Your task to perform on an android device: Open Chrome and go to the settings page Image 0: 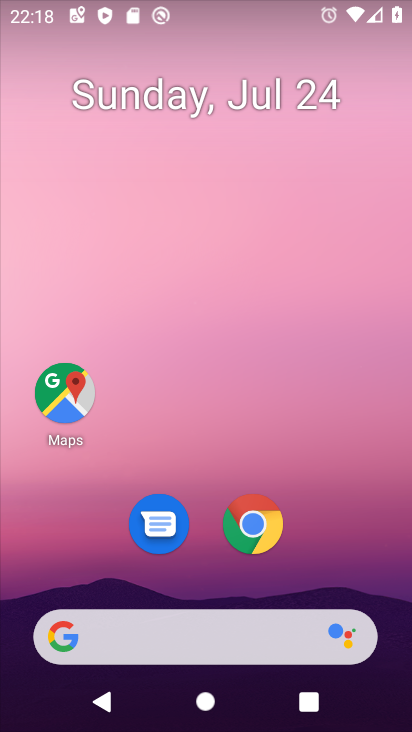
Step 0: click (255, 523)
Your task to perform on an android device: Open Chrome and go to the settings page Image 1: 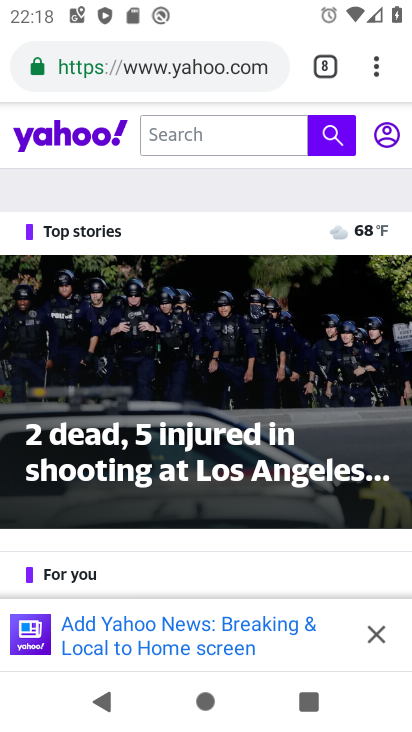
Step 1: task complete